Your task to perform on an android device: Open maps Image 0: 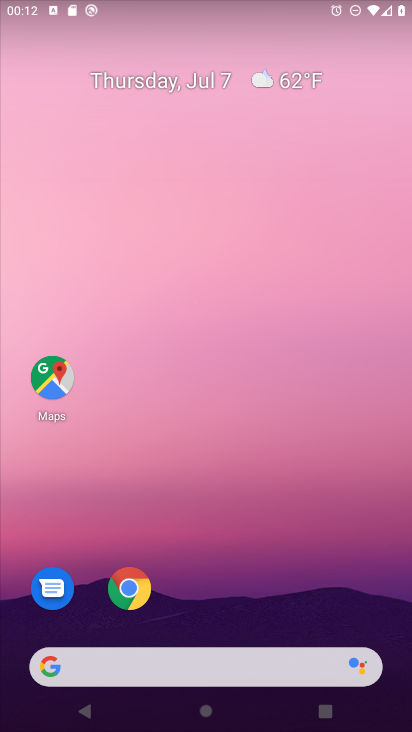
Step 0: drag from (335, 600) to (308, 359)
Your task to perform on an android device: Open maps Image 1: 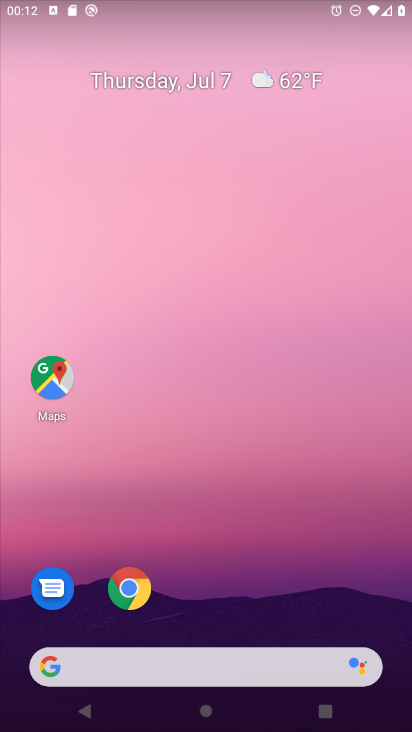
Step 1: click (49, 376)
Your task to perform on an android device: Open maps Image 2: 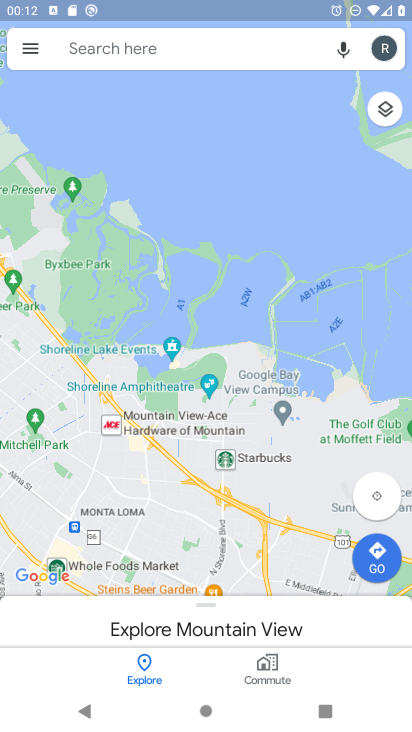
Step 2: task complete